Your task to perform on an android device: delete a single message in the gmail app Image 0: 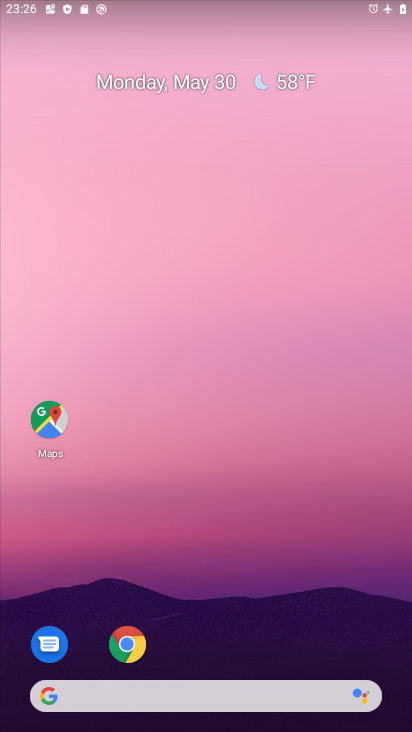
Step 0: drag from (397, 658) to (305, 193)
Your task to perform on an android device: delete a single message in the gmail app Image 1: 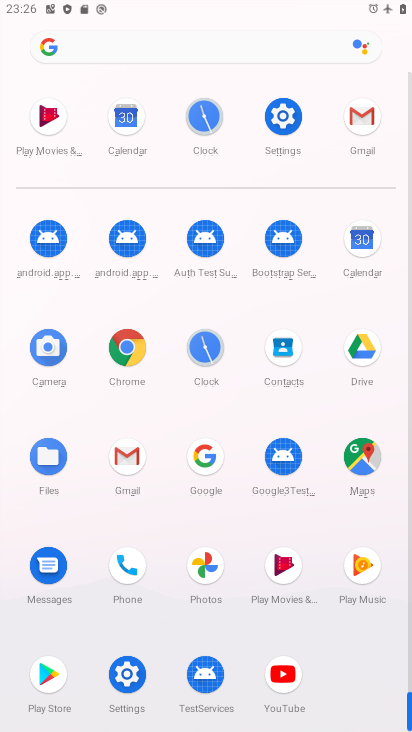
Step 1: click (125, 459)
Your task to perform on an android device: delete a single message in the gmail app Image 2: 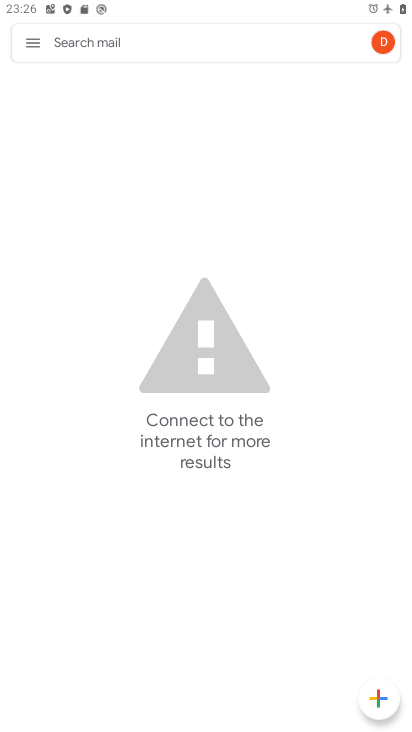
Step 2: click (26, 42)
Your task to perform on an android device: delete a single message in the gmail app Image 3: 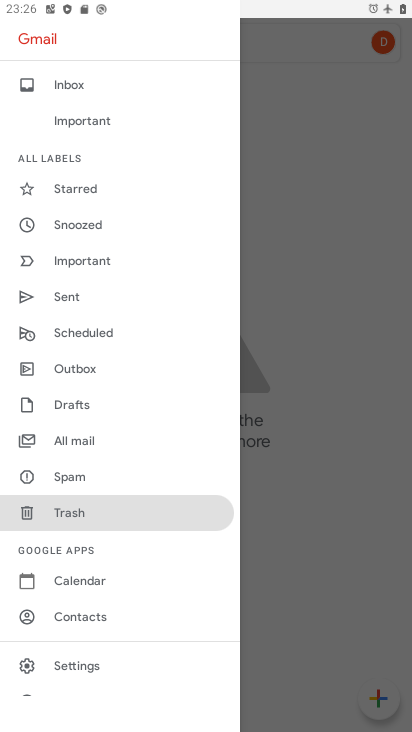
Step 3: click (86, 437)
Your task to perform on an android device: delete a single message in the gmail app Image 4: 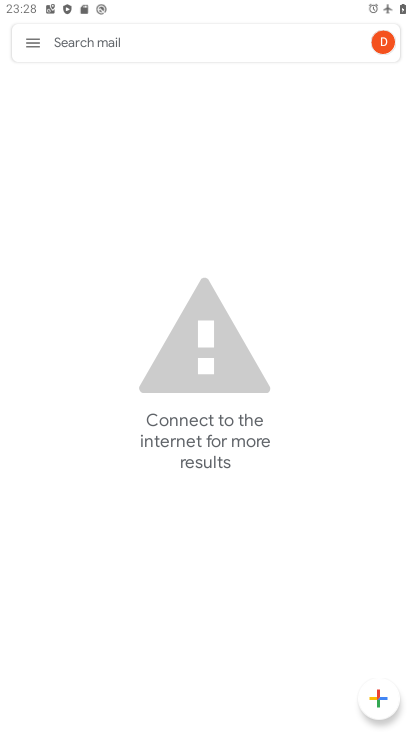
Step 4: task complete